Your task to perform on an android device: When is my next meeting? Image 0: 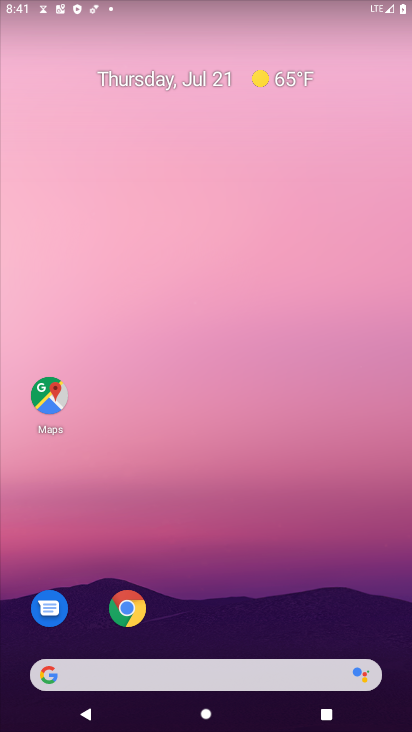
Step 0: drag from (181, 681) to (175, 292)
Your task to perform on an android device: When is my next meeting? Image 1: 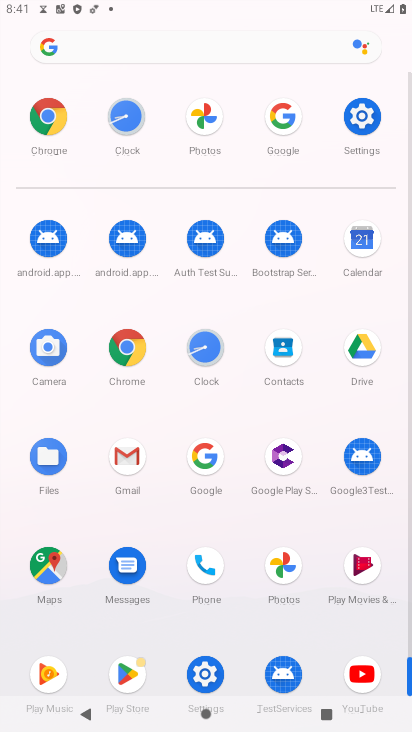
Step 1: click (367, 246)
Your task to perform on an android device: When is my next meeting? Image 2: 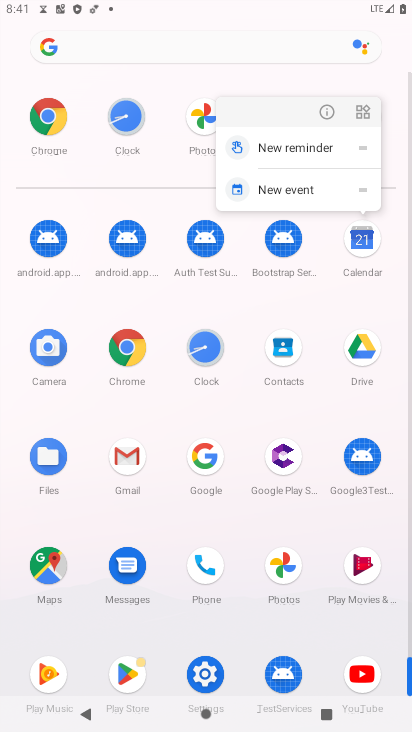
Step 2: click (367, 246)
Your task to perform on an android device: When is my next meeting? Image 3: 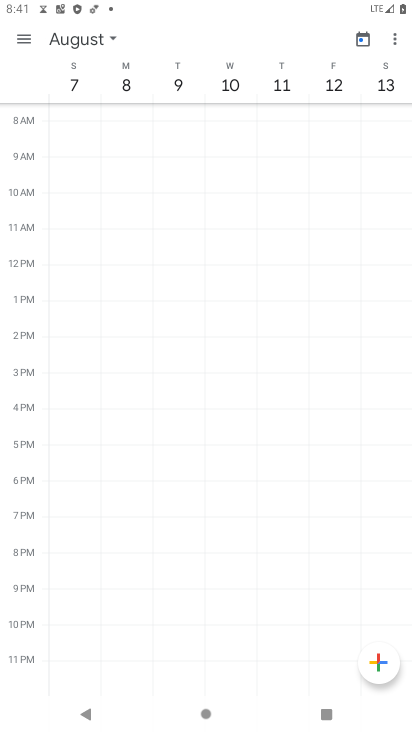
Step 3: click (364, 35)
Your task to perform on an android device: When is my next meeting? Image 4: 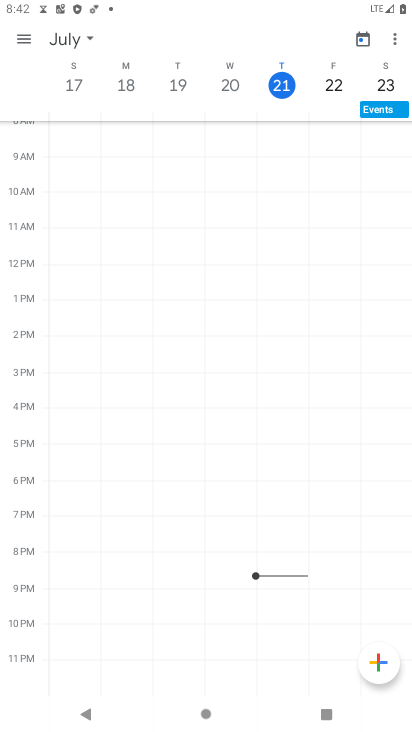
Step 4: click (90, 39)
Your task to perform on an android device: When is my next meeting? Image 5: 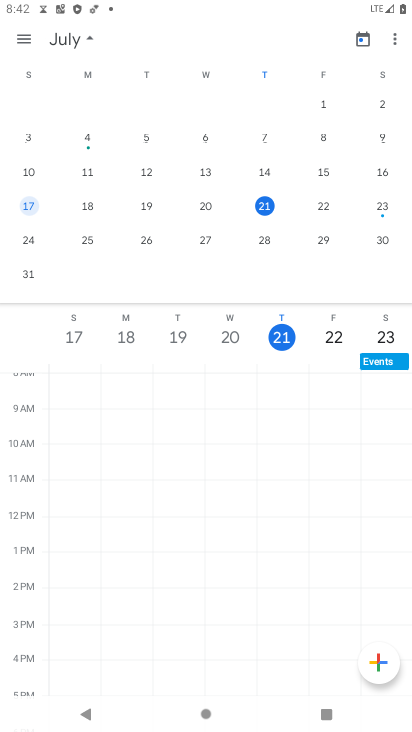
Step 5: click (387, 209)
Your task to perform on an android device: When is my next meeting? Image 6: 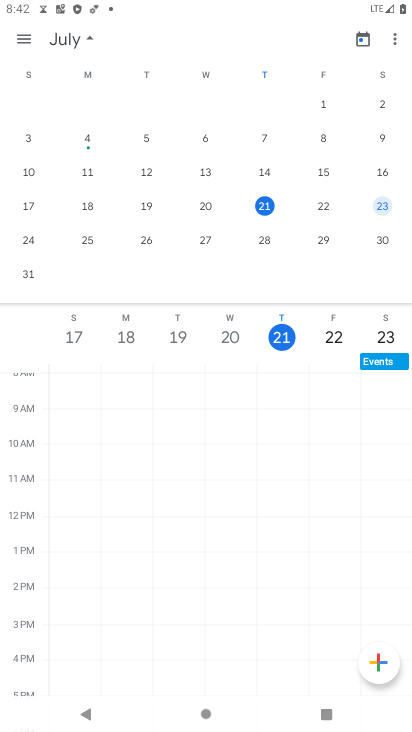
Step 6: click (31, 38)
Your task to perform on an android device: When is my next meeting? Image 7: 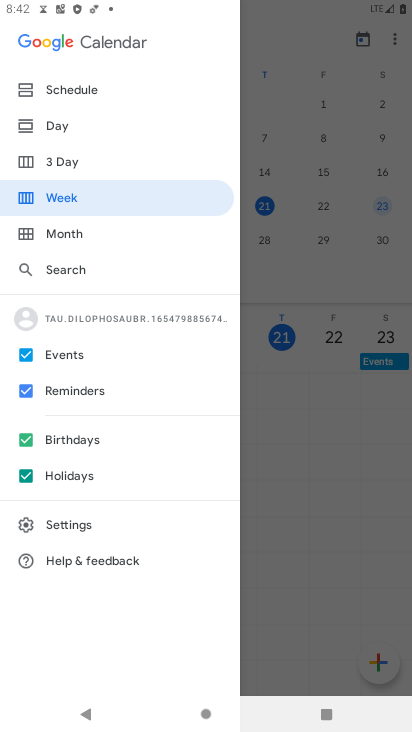
Step 7: click (62, 94)
Your task to perform on an android device: When is my next meeting? Image 8: 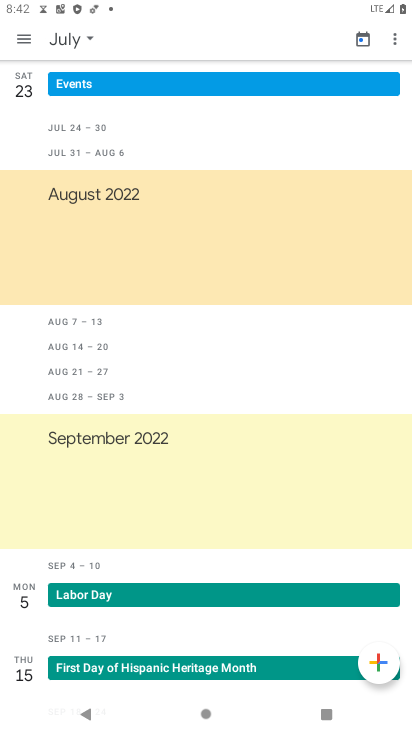
Step 8: task complete